Your task to perform on an android device: set an alarm Image 0: 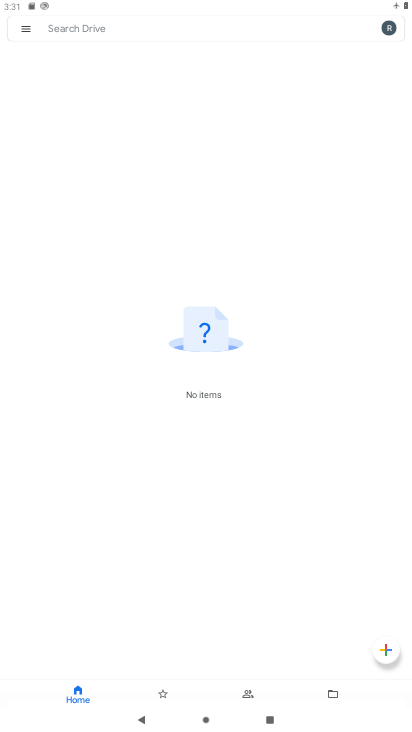
Step 0: press home button
Your task to perform on an android device: set an alarm Image 1: 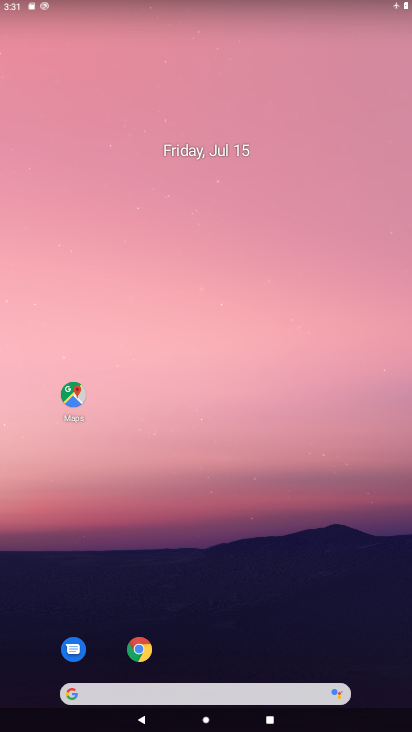
Step 1: drag from (377, 666) to (310, 57)
Your task to perform on an android device: set an alarm Image 2: 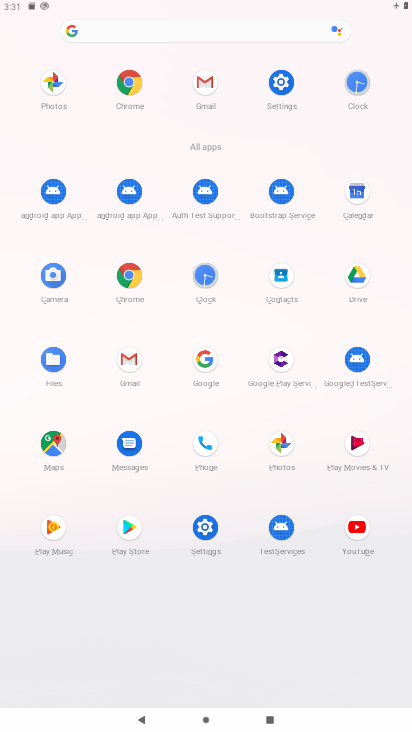
Step 2: click (202, 276)
Your task to perform on an android device: set an alarm Image 3: 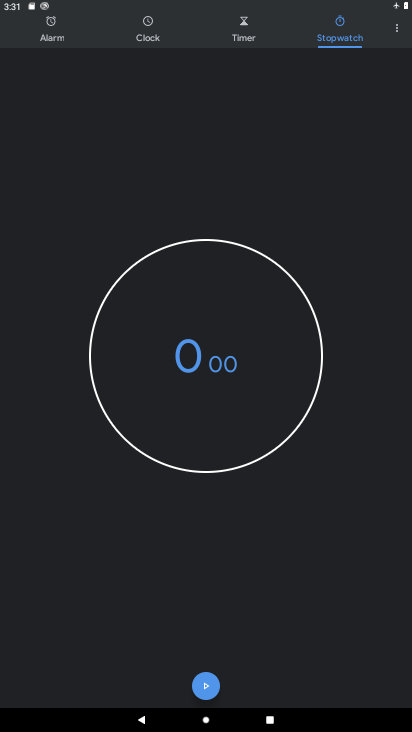
Step 3: click (54, 32)
Your task to perform on an android device: set an alarm Image 4: 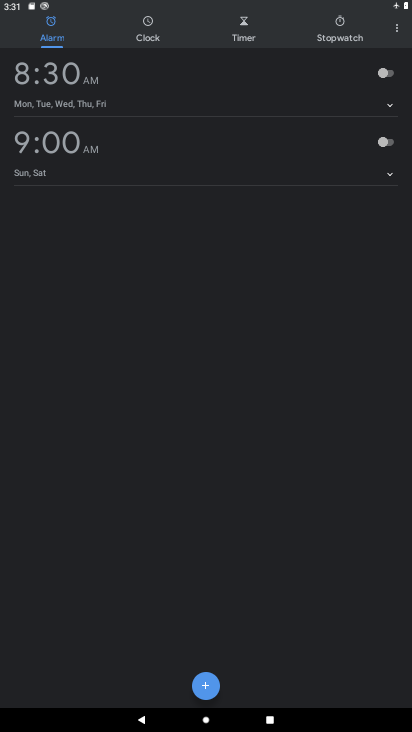
Step 4: click (42, 76)
Your task to perform on an android device: set an alarm Image 5: 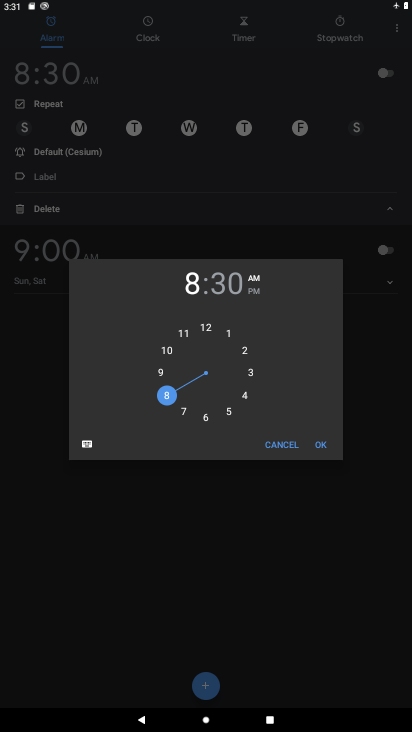
Step 5: click (208, 422)
Your task to perform on an android device: set an alarm Image 6: 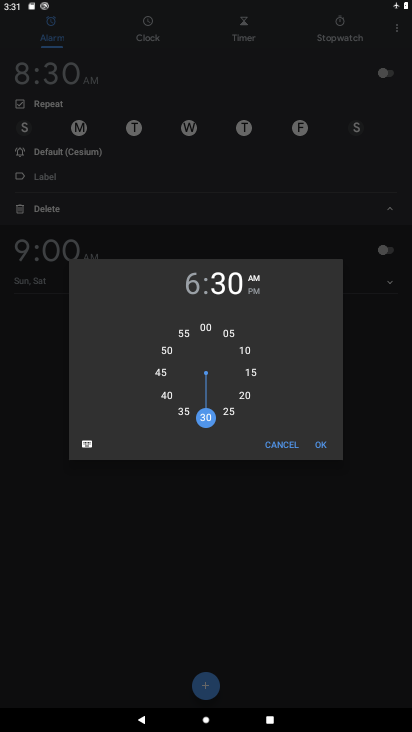
Step 6: click (206, 325)
Your task to perform on an android device: set an alarm Image 7: 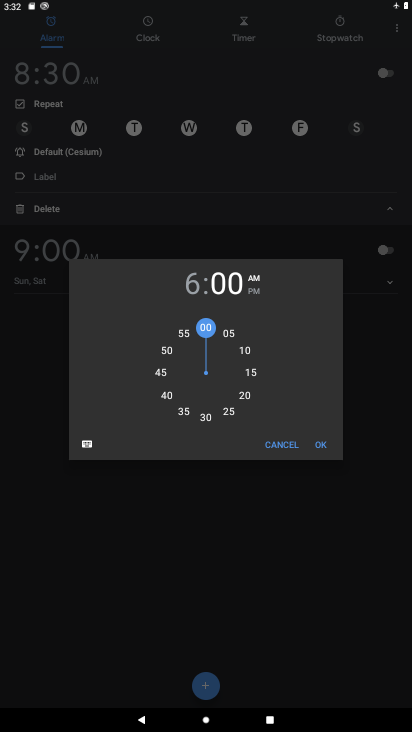
Step 7: click (322, 446)
Your task to perform on an android device: set an alarm Image 8: 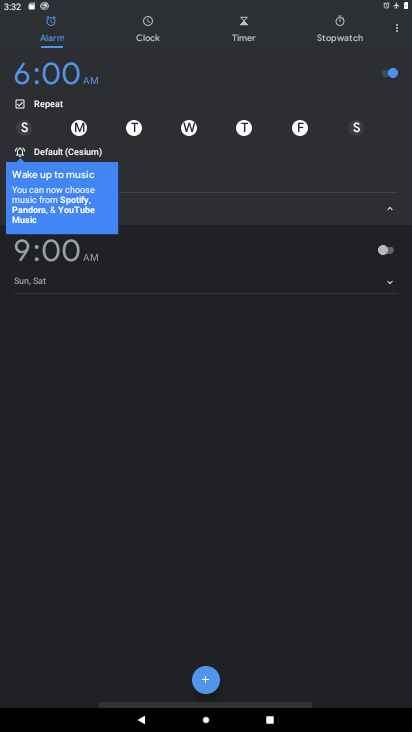
Step 8: click (353, 131)
Your task to perform on an android device: set an alarm Image 9: 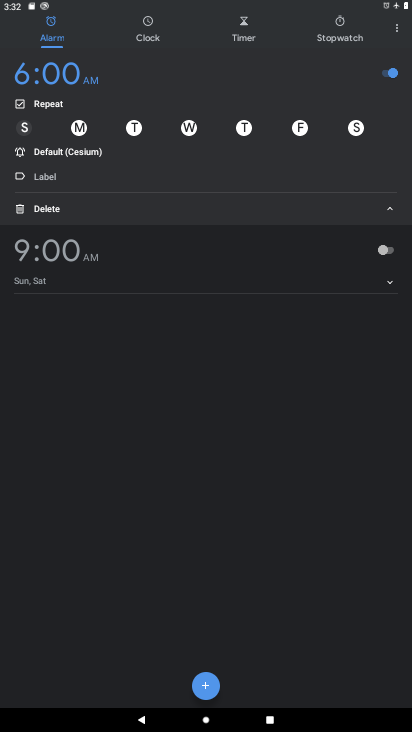
Step 9: click (392, 208)
Your task to perform on an android device: set an alarm Image 10: 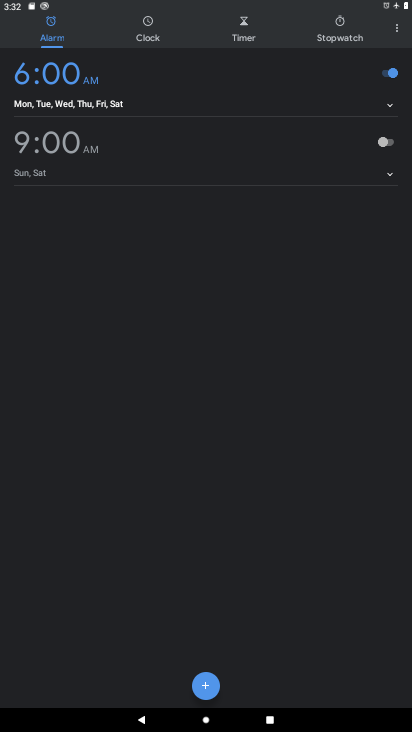
Step 10: task complete